Your task to perform on an android device: turn on notifications settings in the gmail app Image 0: 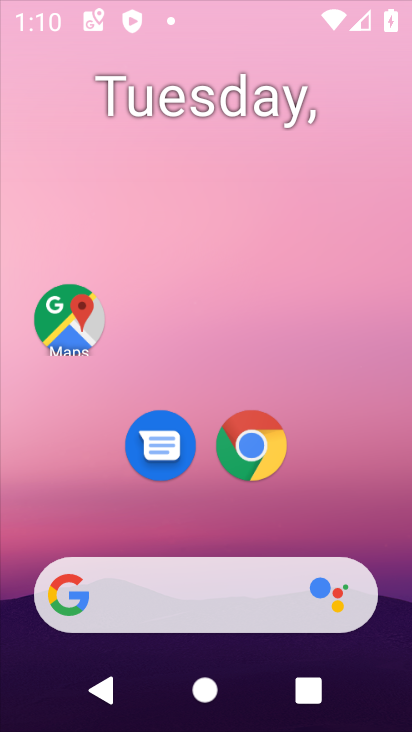
Step 0: drag from (338, 464) to (396, 33)
Your task to perform on an android device: turn on notifications settings in the gmail app Image 1: 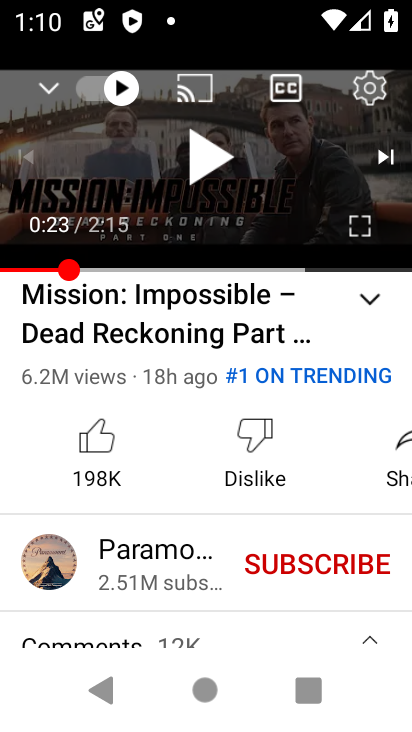
Step 1: press home button
Your task to perform on an android device: turn on notifications settings in the gmail app Image 2: 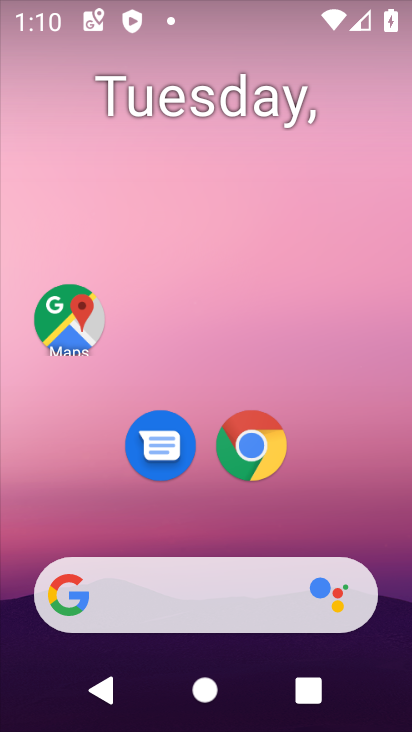
Step 2: drag from (382, 443) to (405, 10)
Your task to perform on an android device: turn on notifications settings in the gmail app Image 3: 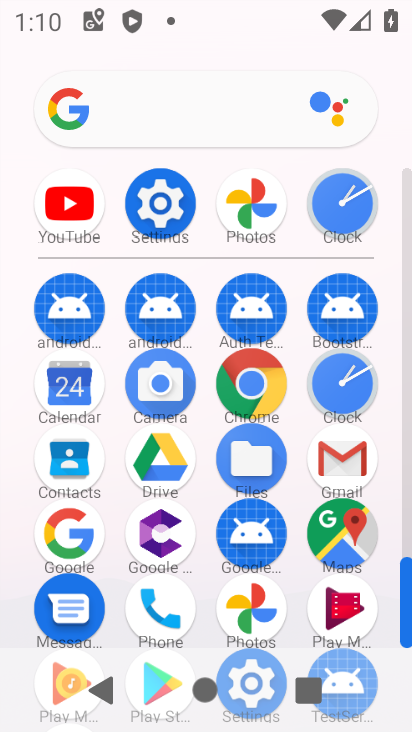
Step 3: drag from (206, 256) to (269, 4)
Your task to perform on an android device: turn on notifications settings in the gmail app Image 4: 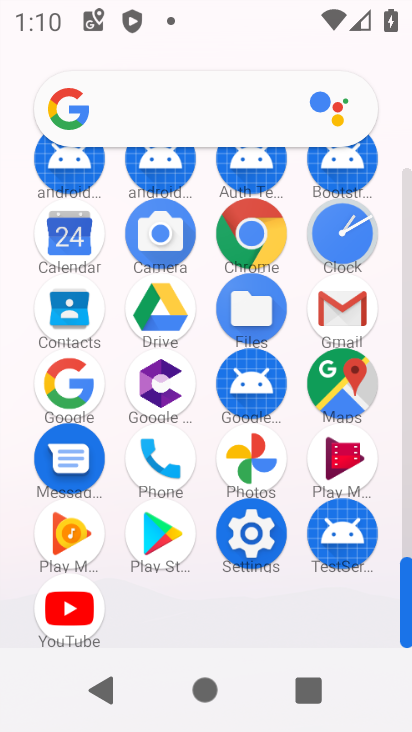
Step 4: click (337, 299)
Your task to perform on an android device: turn on notifications settings in the gmail app Image 5: 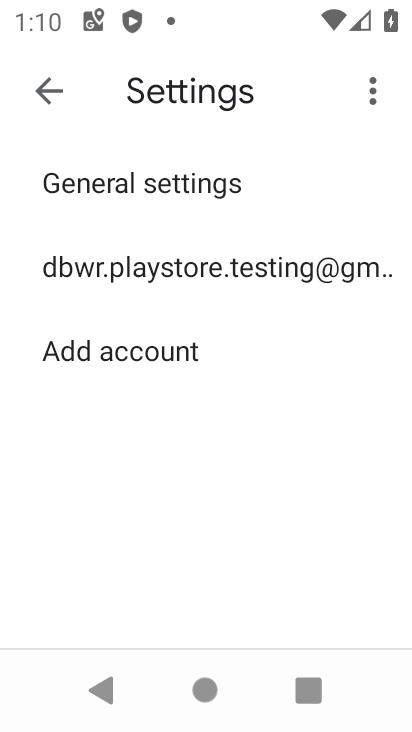
Step 5: click (37, 93)
Your task to perform on an android device: turn on notifications settings in the gmail app Image 6: 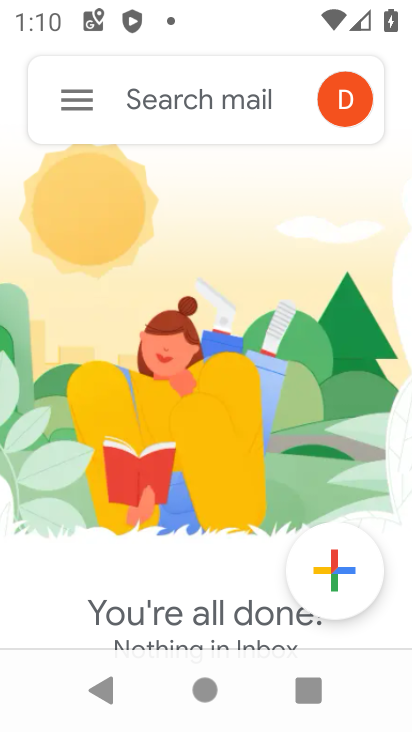
Step 6: click (59, 101)
Your task to perform on an android device: turn on notifications settings in the gmail app Image 7: 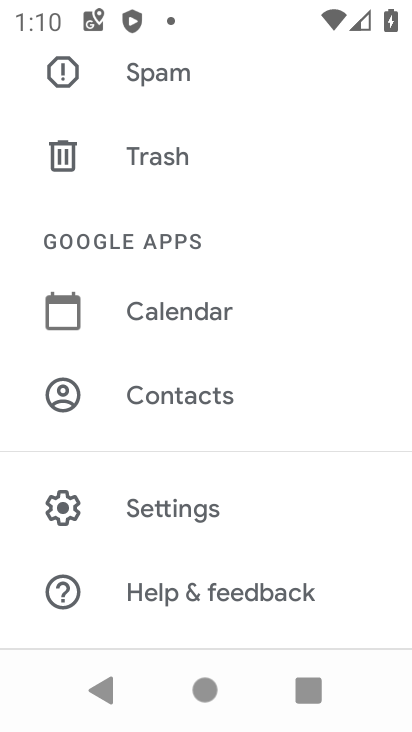
Step 7: click (171, 509)
Your task to perform on an android device: turn on notifications settings in the gmail app Image 8: 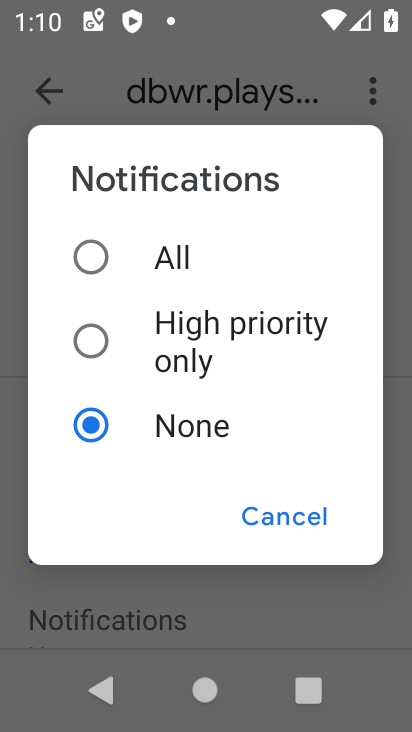
Step 8: click (93, 256)
Your task to perform on an android device: turn on notifications settings in the gmail app Image 9: 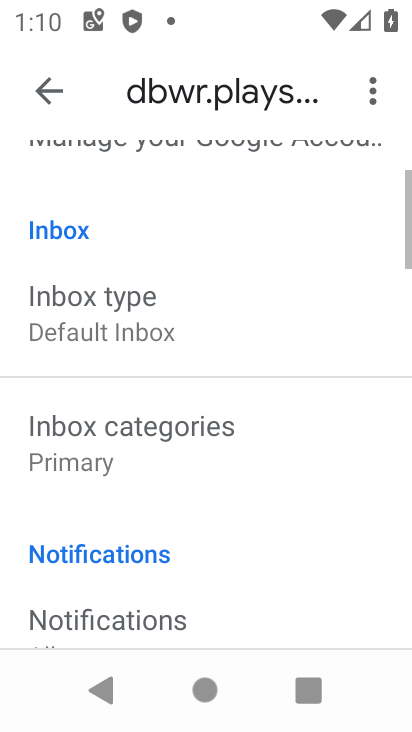
Step 9: task complete